Your task to perform on an android device: create a new album in the google photos Image 0: 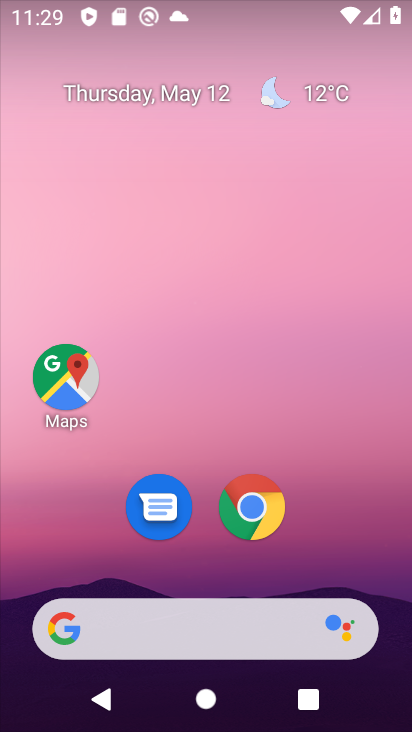
Step 0: drag from (234, 553) to (301, 25)
Your task to perform on an android device: create a new album in the google photos Image 1: 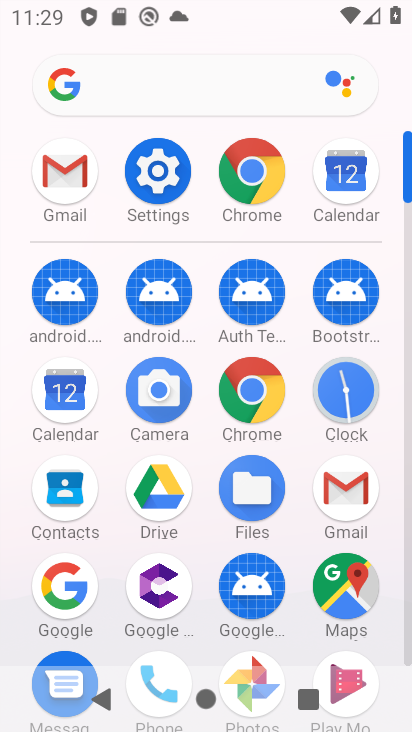
Step 1: drag from (195, 587) to (242, 240)
Your task to perform on an android device: create a new album in the google photos Image 2: 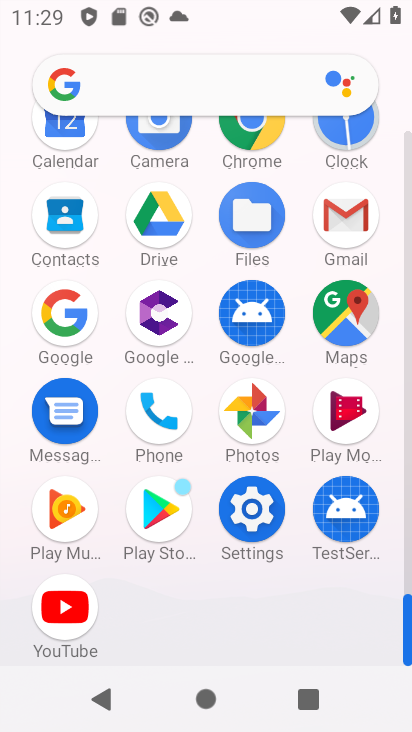
Step 2: click (249, 419)
Your task to perform on an android device: create a new album in the google photos Image 3: 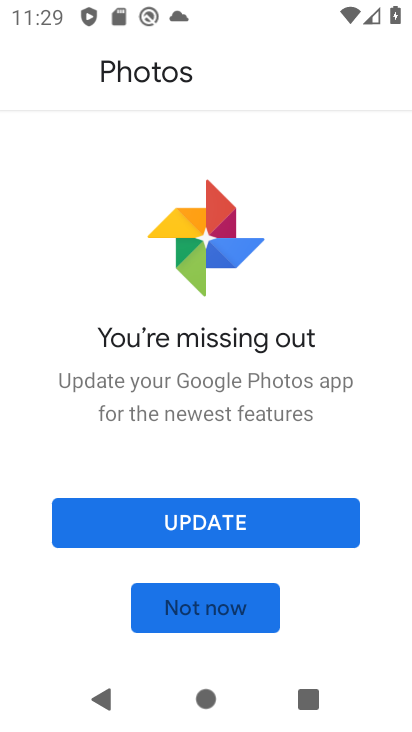
Step 3: click (225, 519)
Your task to perform on an android device: create a new album in the google photos Image 4: 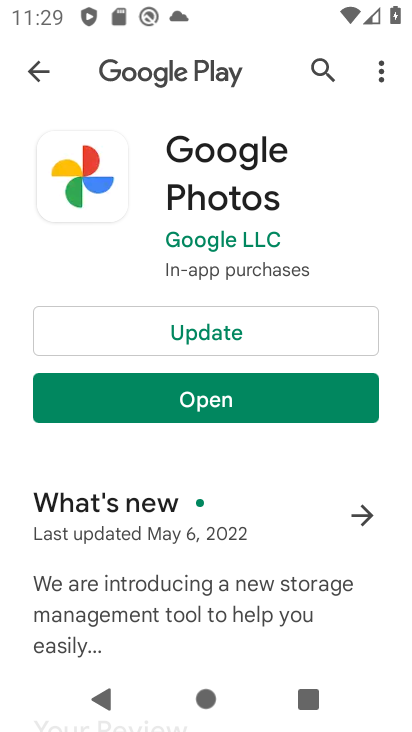
Step 4: click (298, 322)
Your task to perform on an android device: create a new album in the google photos Image 5: 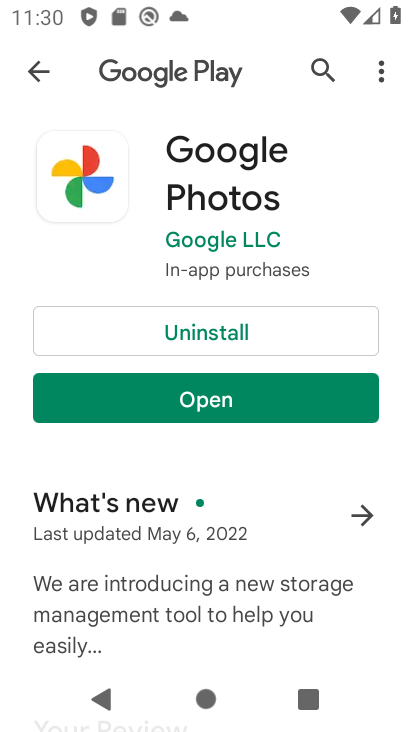
Step 5: click (253, 419)
Your task to perform on an android device: create a new album in the google photos Image 6: 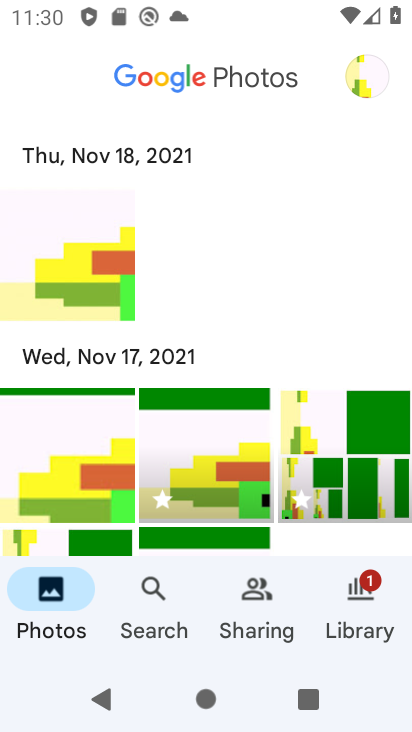
Step 6: click (368, 605)
Your task to perform on an android device: create a new album in the google photos Image 7: 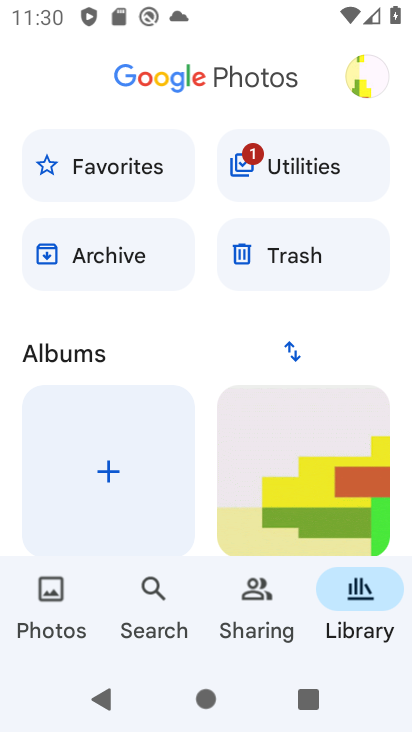
Step 7: click (120, 469)
Your task to perform on an android device: create a new album in the google photos Image 8: 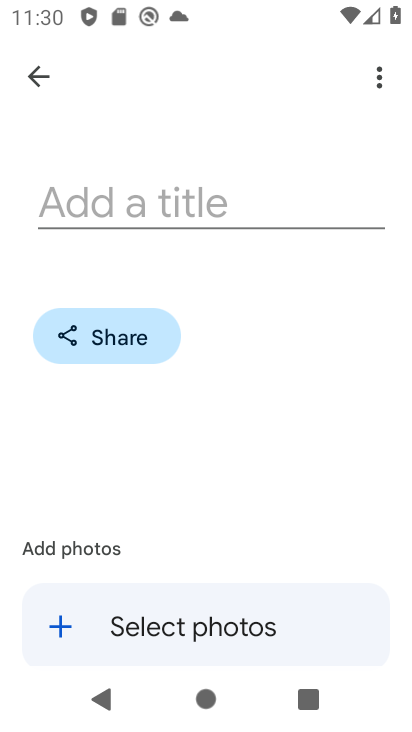
Step 8: click (214, 215)
Your task to perform on an android device: create a new album in the google photos Image 9: 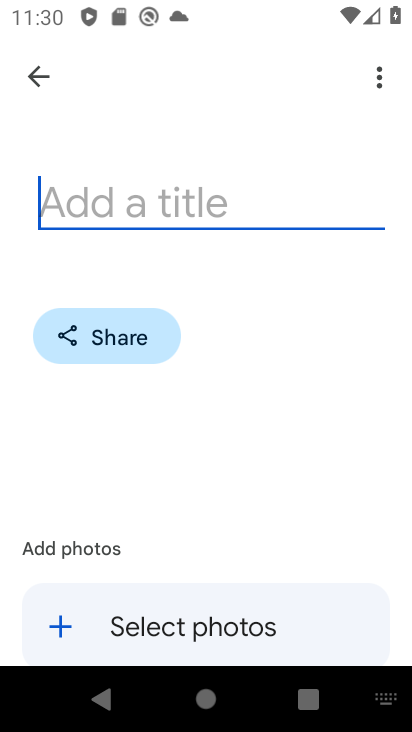
Step 9: type "studd"
Your task to perform on an android device: create a new album in the google photos Image 10: 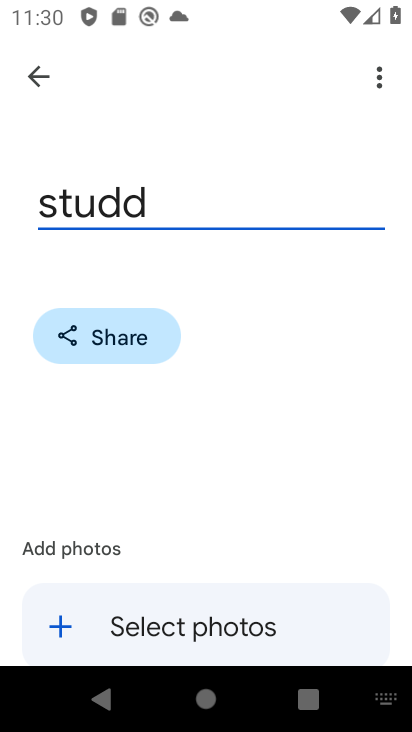
Step 10: click (67, 625)
Your task to perform on an android device: create a new album in the google photos Image 11: 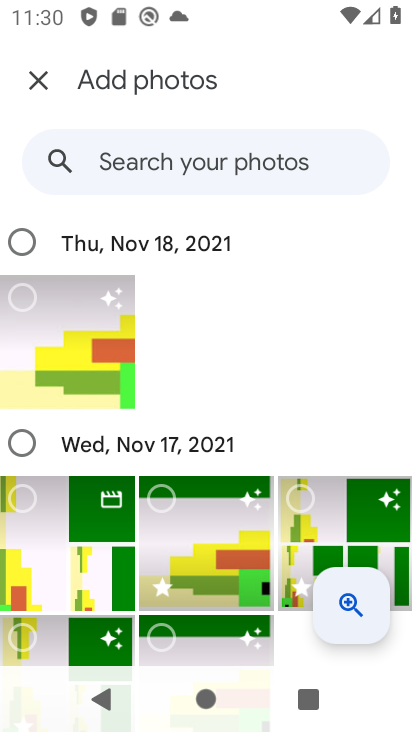
Step 11: click (56, 356)
Your task to perform on an android device: create a new album in the google photos Image 12: 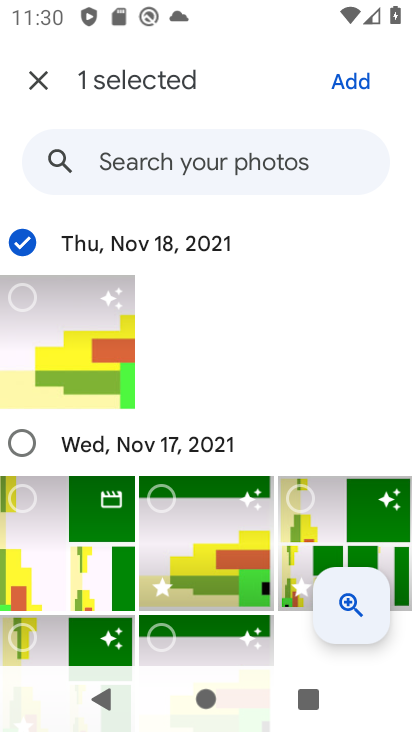
Step 12: click (174, 489)
Your task to perform on an android device: create a new album in the google photos Image 13: 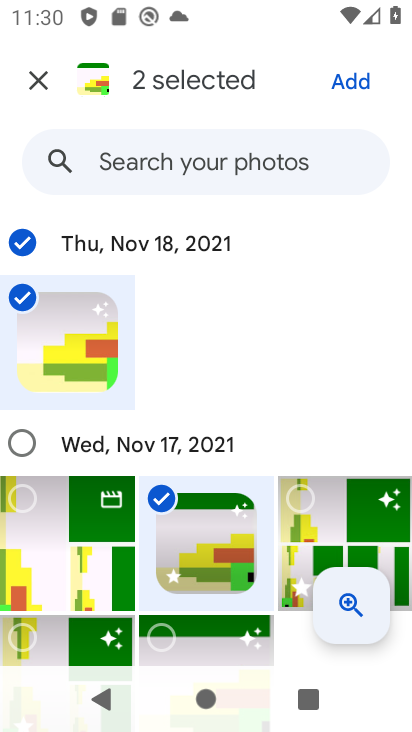
Step 13: click (175, 638)
Your task to perform on an android device: create a new album in the google photos Image 14: 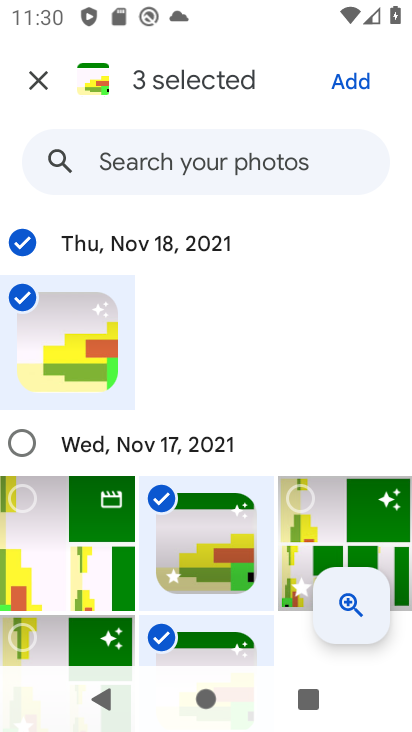
Step 14: task complete